Your task to perform on an android device: delete the emails in spam in the gmail app Image 0: 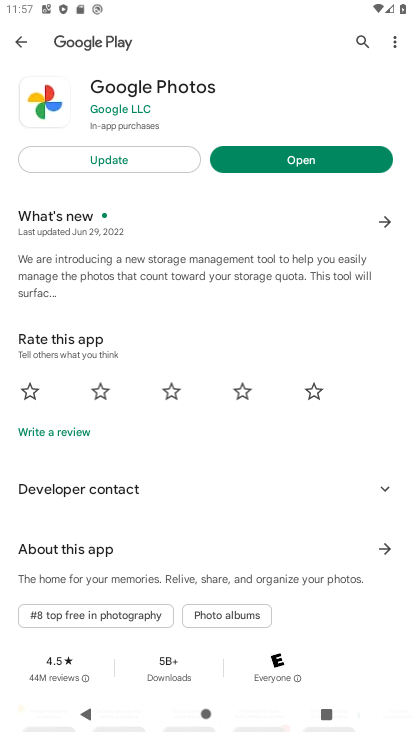
Step 0: press home button
Your task to perform on an android device: delete the emails in spam in the gmail app Image 1: 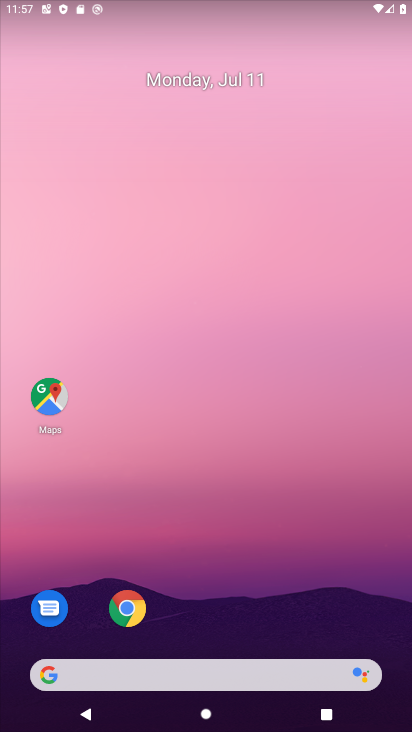
Step 1: drag from (170, 634) to (194, 118)
Your task to perform on an android device: delete the emails in spam in the gmail app Image 2: 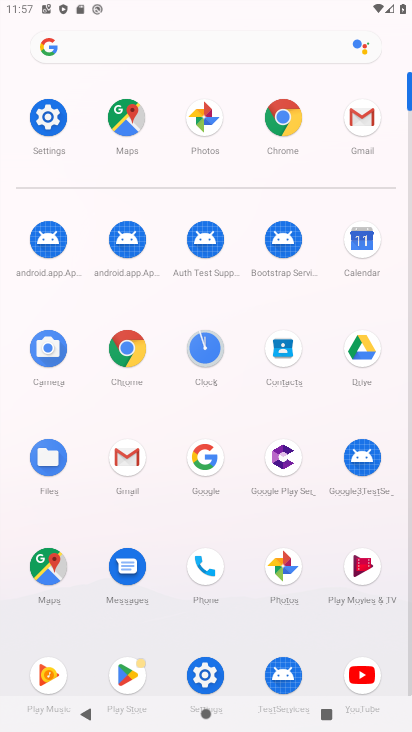
Step 2: click (375, 107)
Your task to perform on an android device: delete the emails in spam in the gmail app Image 3: 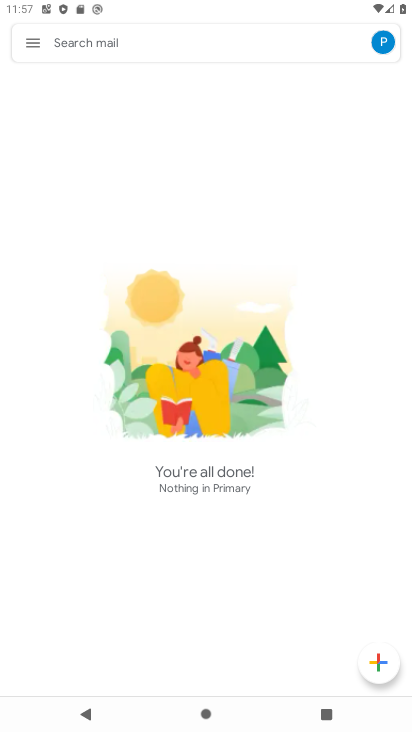
Step 3: click (28, 46)
Your task to perform on an android device: delete the emails in spam in the gmail app Image 4: 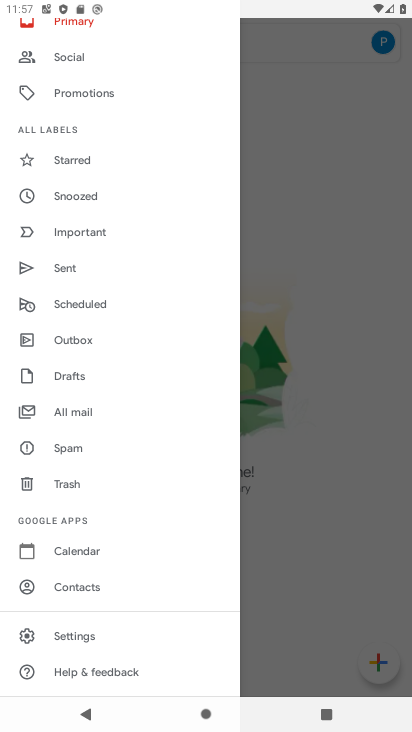
Step 4: click (87, 443)
Your task to perform on an android device: delete the emails in spam in the gmail app Image 5: 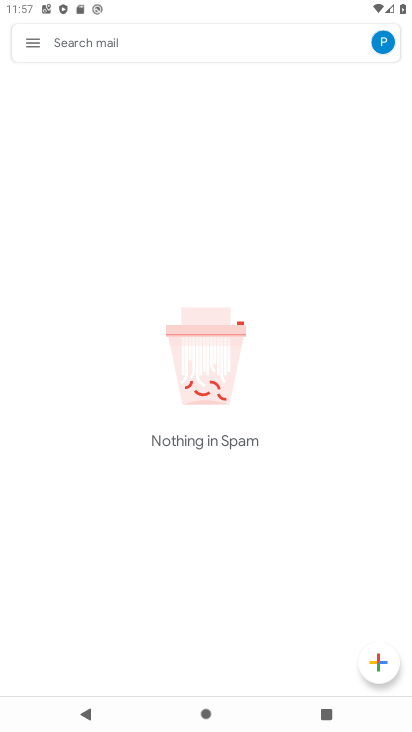
Step 5: task complete